Your task to perform on an android device: Go to privacy settings Image 0: 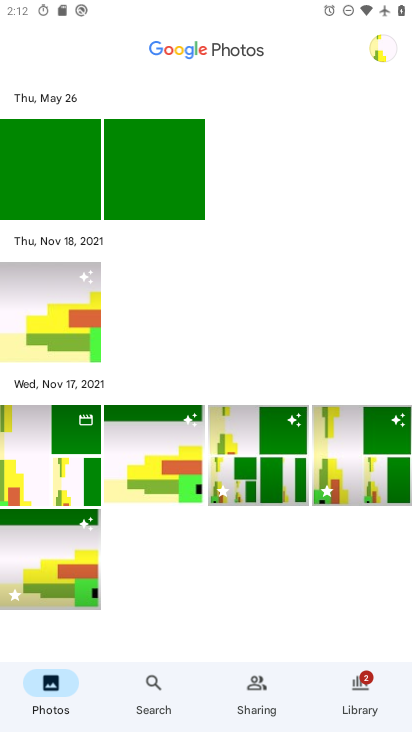
Step 0: press home button
Your task to perform on an android device: Go to privacy settings Image 1: 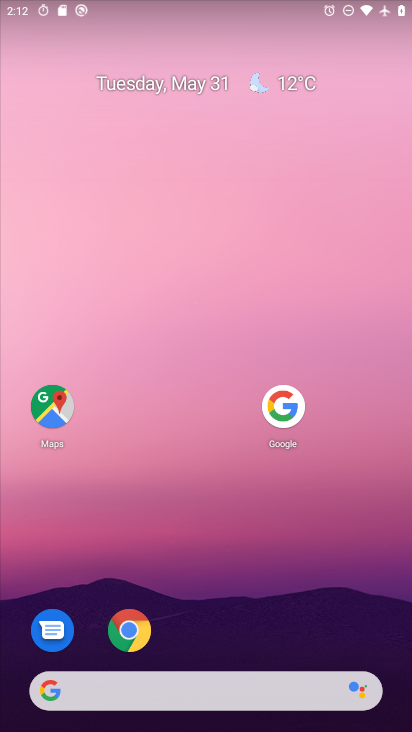
Step 1: drag from (199, 597) to (310, 86)
Your task to perform on an android device: Go to privacy settings Image 2: 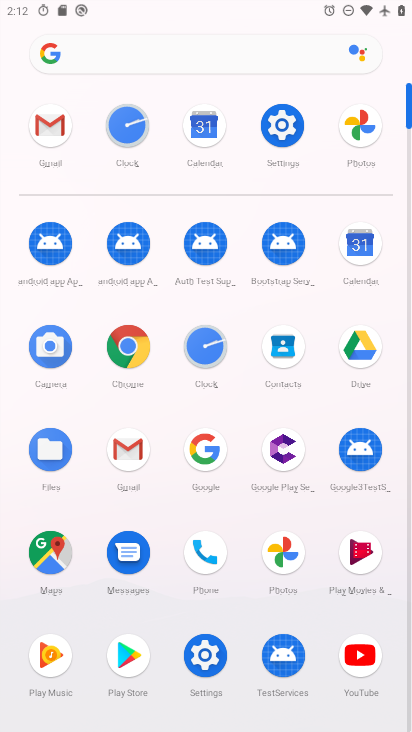
Step 2: click (282, 127)
Your task to perform on an android device: Go to privacy settings Image 3: 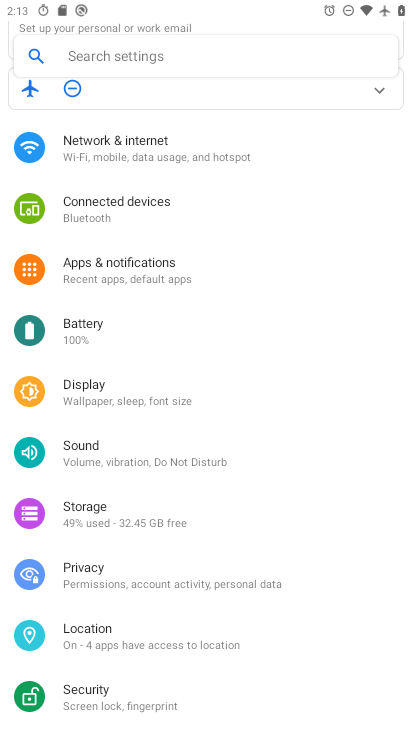
Step 3: click (112, 571)
Your task to perform on an android device: Go to privacy settings Image 4: 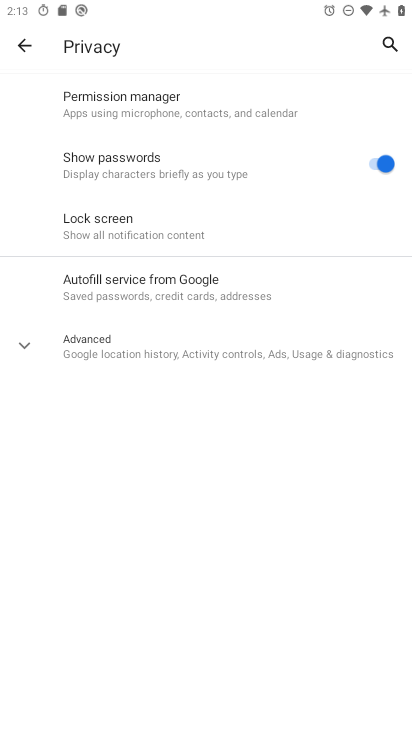
Step 4: task complete